Your task to perform on an android device: Open notification settings Image 0: 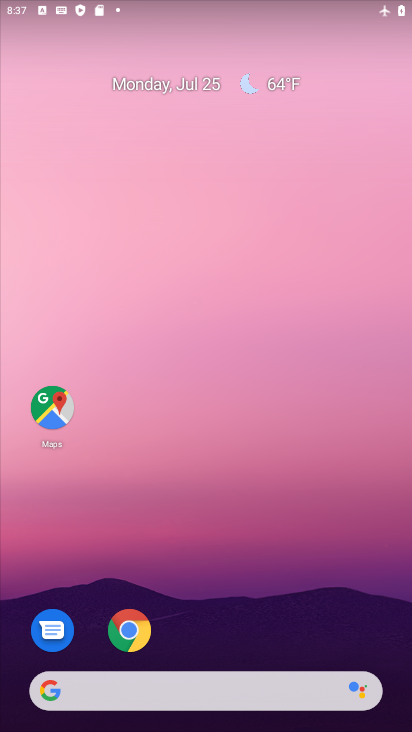
Step 0: drag from (356, 637) to (320, 318)
Your task to perform on an android device: Open notification settings Image 1: 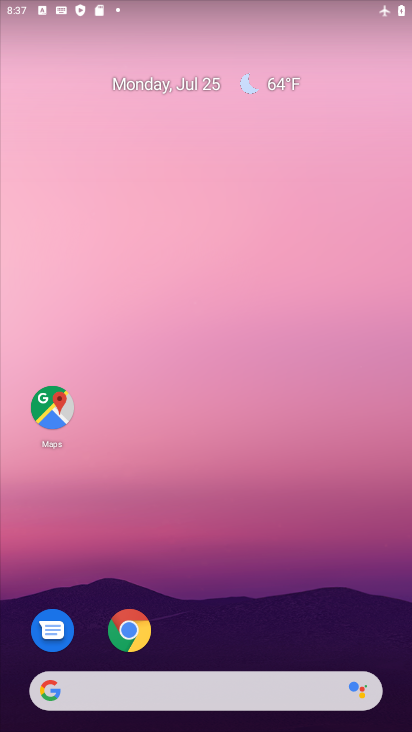
Step 1: drag from (366, 616) to (312, 273)
Your task to perform on an android device: Open notification settings Image 2: 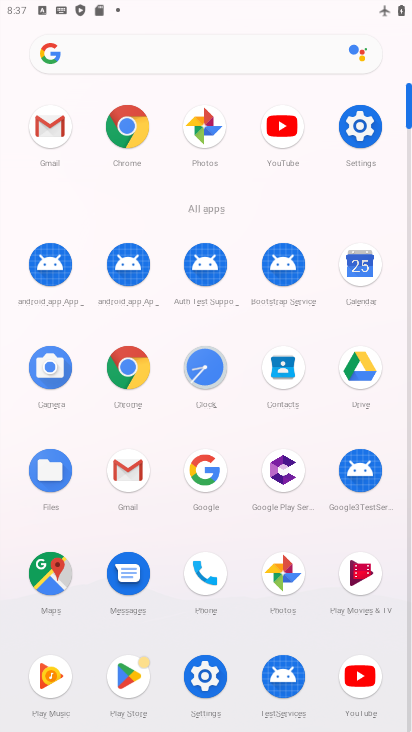
Step 2: click (206, 676)
Your task to perform on an android device: Open notification settings Image 3: 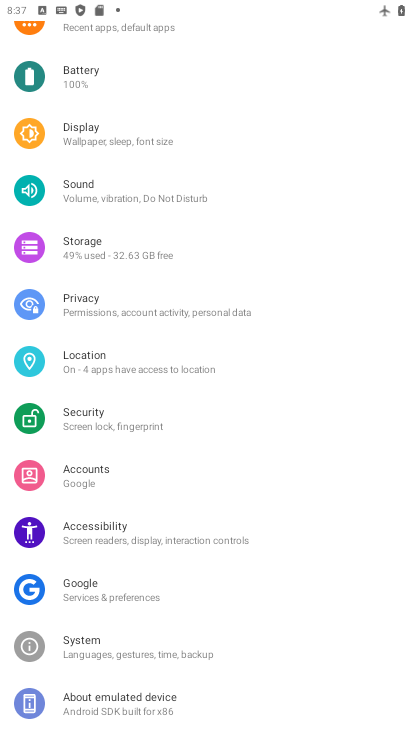
Step 3: drag from (285, 231) to (292, 453)
Your task to perform on an android device: Open notification settings Image 4: 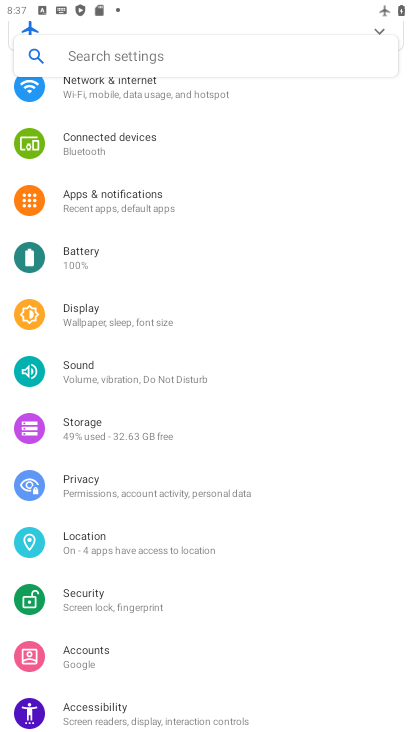
Step 4: click (118, 192)
Your task to perform on an android device: Open notification settings Image 5: 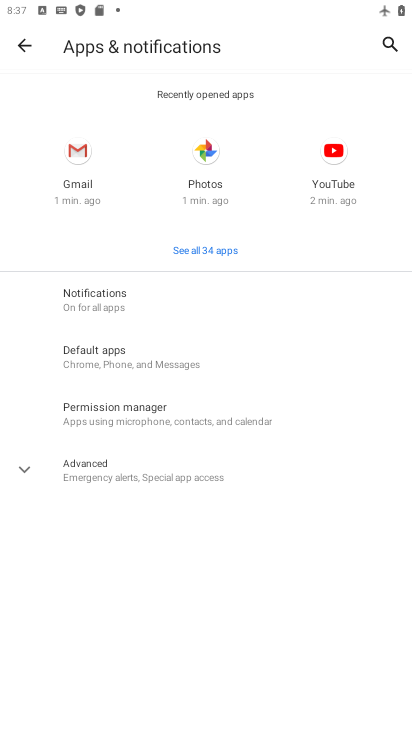
Step 5: click (84, 293)
Your task to perform on an android device: Open notification settings Image 6: 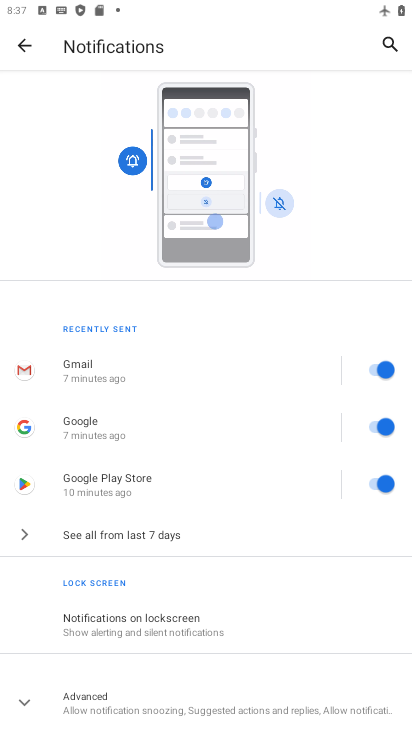
Step 6: click (21, 699)
Your task to perform on an android device: Open notification settings Image 7: 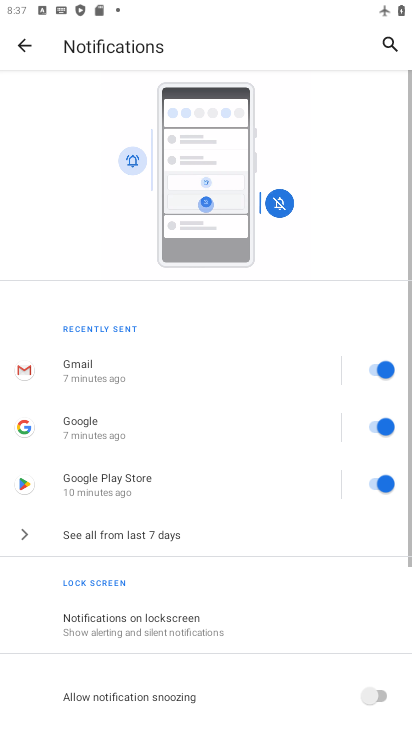
Step 7: task complete